Your task to perform on an android device: set the timer Image 0: 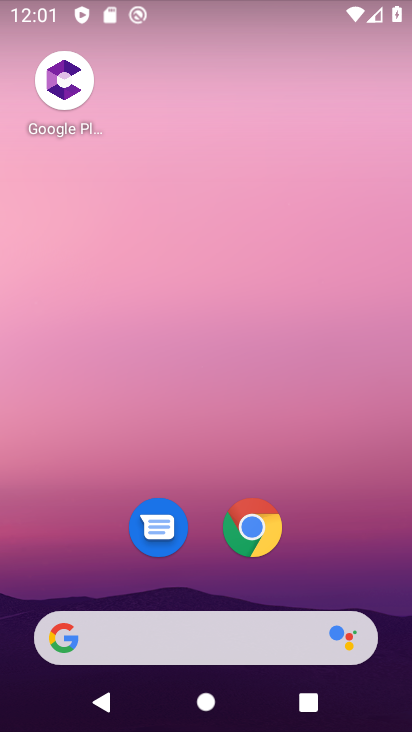
Step 0: drag from (304, 578) to (398, 25)
Your task to perform on an android device: set the timer Image 1: 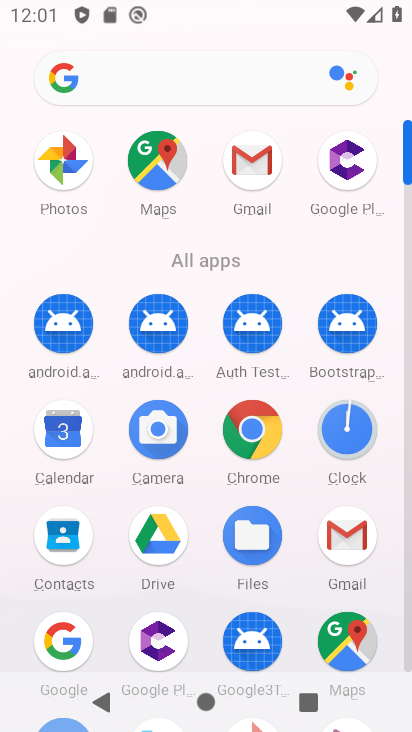
Step 1: click (348, 445)
Your task to perform on an android device: set the timer Image 2: 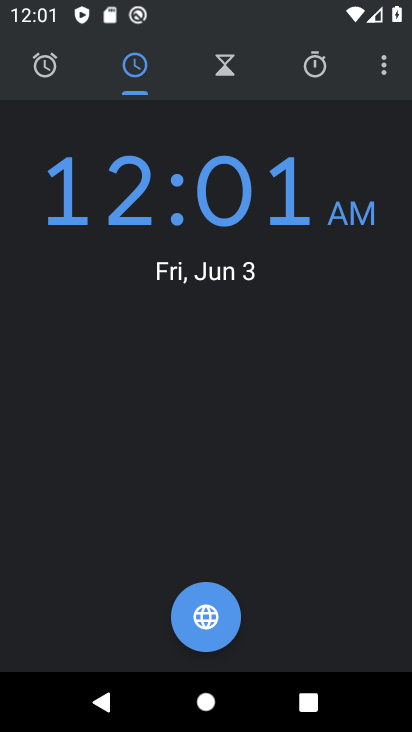
Step 2: click (224, 61)
Your task to perform on an android device: set the timer Image 3: 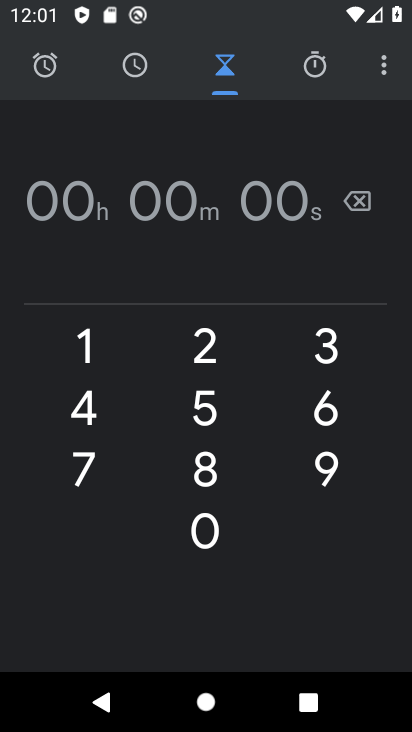
Step 3: click (232, 330)
Your task to perform on an android device: set the timer Image 4: 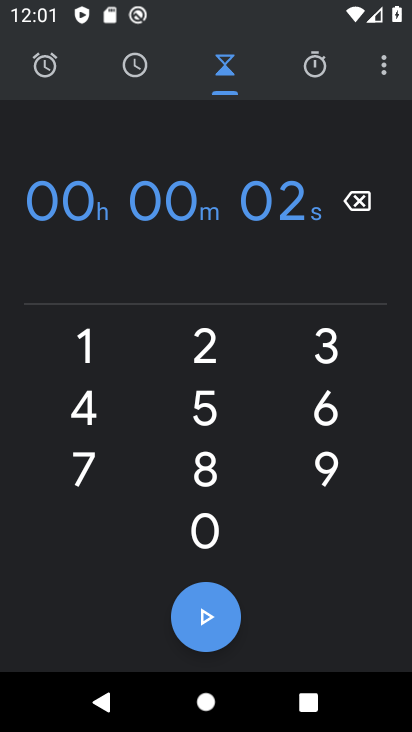
Step 4: click (232, 330)
Your task to perform on an android device: set the timer Image 5: 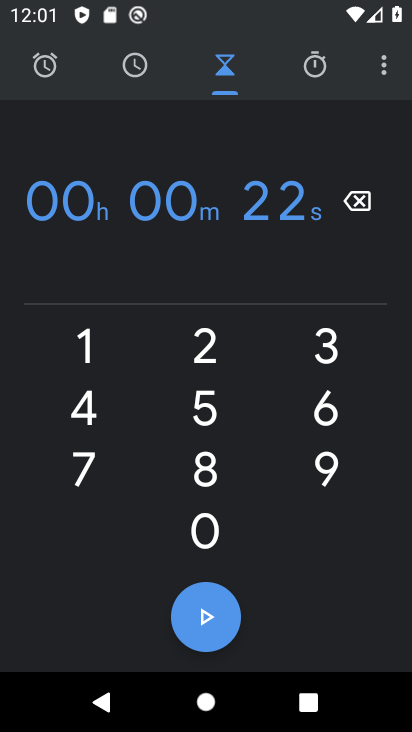
Step 5: click (241, 352)
Your task to perform on an android device: set the timer Image 6: 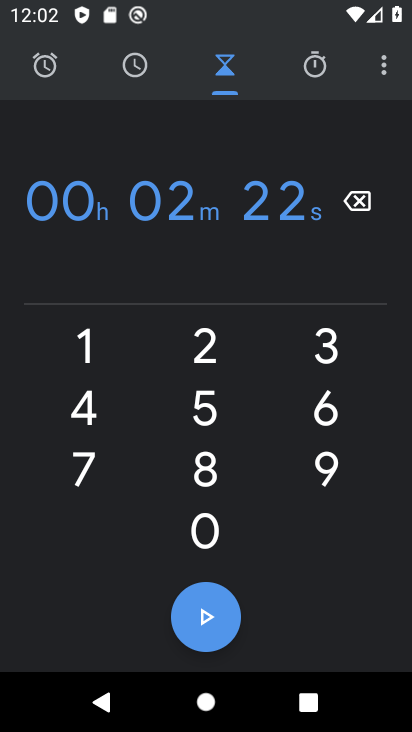
Step 6: click (192, 592)
Your task to perform on an android device: set the timer Image 7: 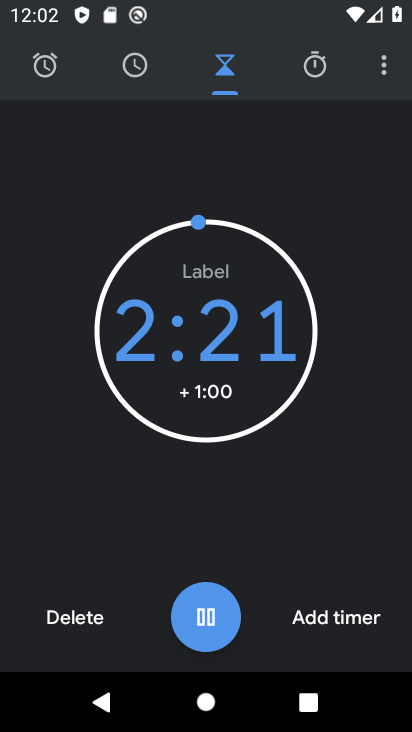
Step 7: task complete